Your task to perform on an android device: Go to network settings Image 0: 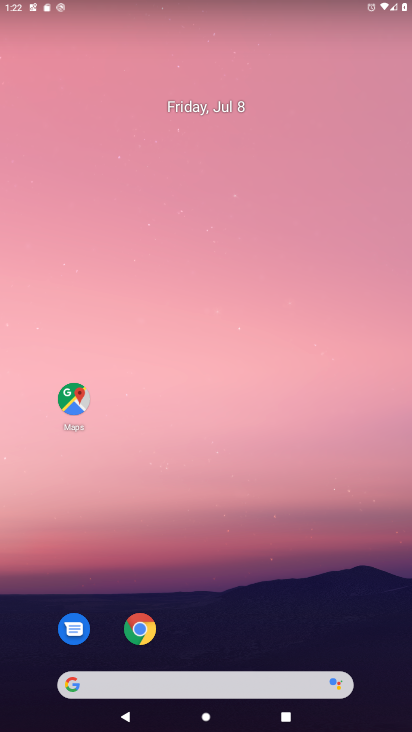
Step 0: drag from (254, 616) to (403, 178)
Your task to perform on an android device: Go to network settings Image 1: 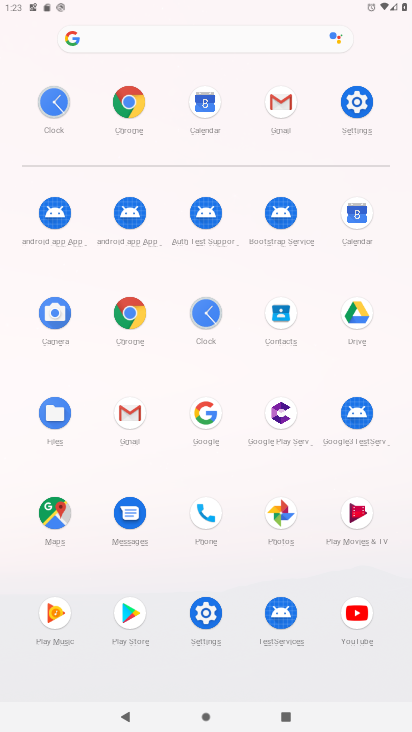
Step 1: click (356, 99)
Your task to perform on an android device: Go to network settings Image 2: 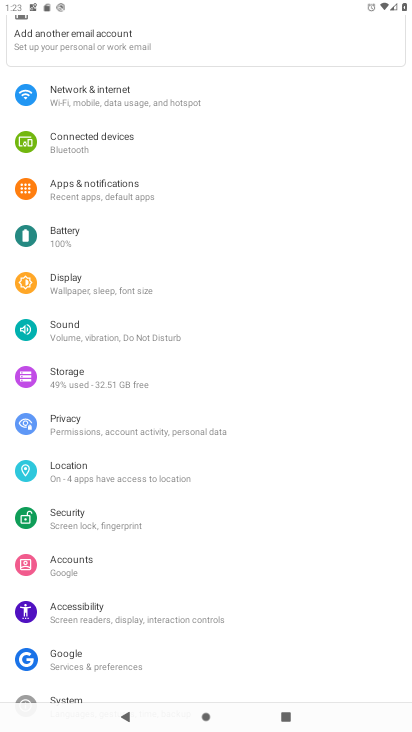
Step 2: click (106, 92)
Your task to perform on an android device: Go to network settings Image 3: 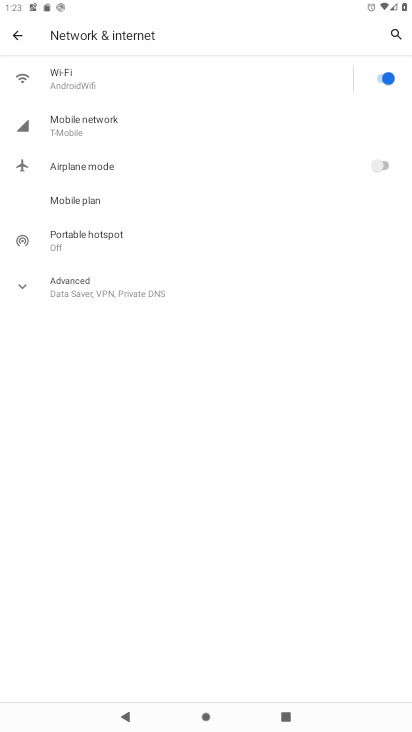
Step 3: click (133, 117)
Your task to perform on an android device: Go to network settings Image 4: 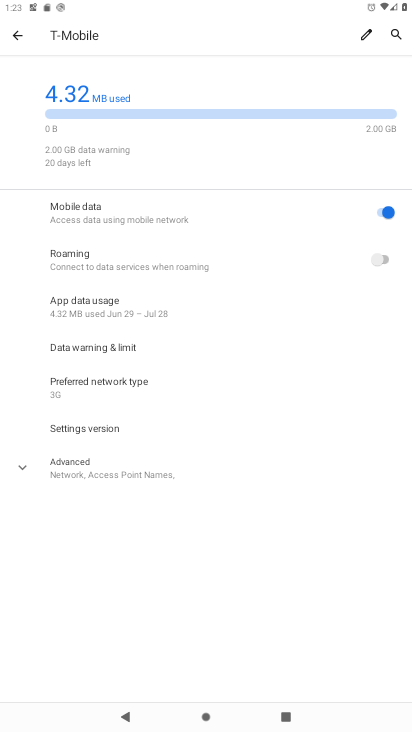
Step 4: task complete